Your task to perform on an android device: Go to wifi settings Image 0: 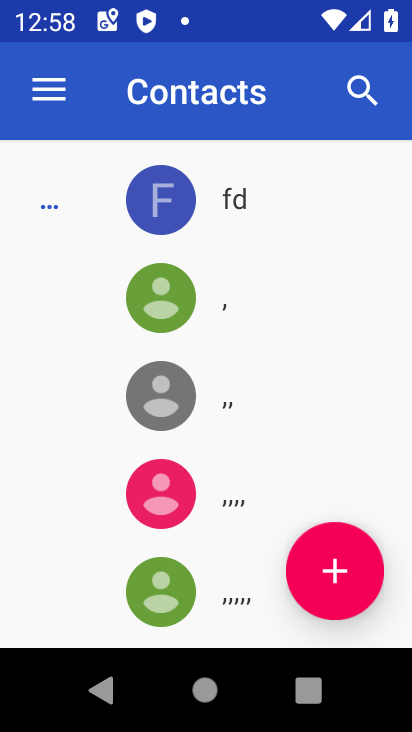
Step 0: press home button
Your task to perform on an android device: Go to wifi settings Image 1: 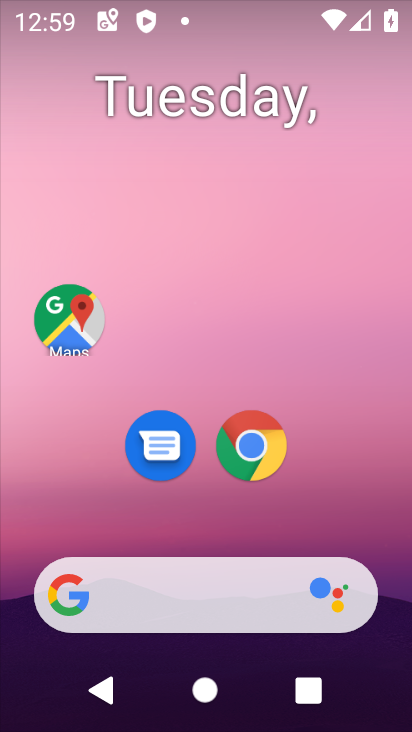
Step 1: drag from (340, 508) to (344, 75)
Your task to perform on an android device: Go to wifi settings Image 2: 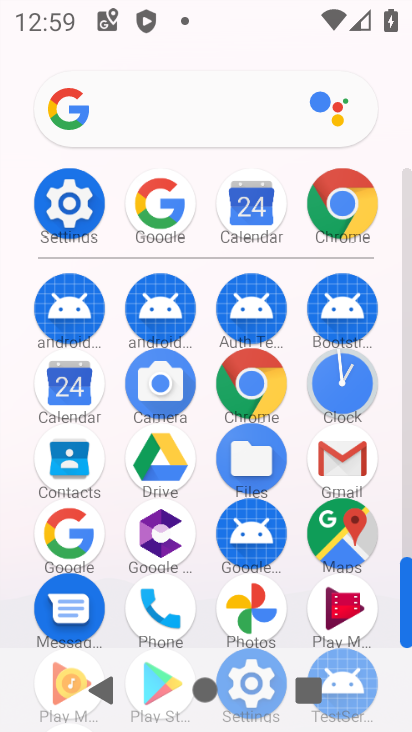
Step 2: click (64, 200)
Your task to perform on an android device: Go to wifi settings Image 3: 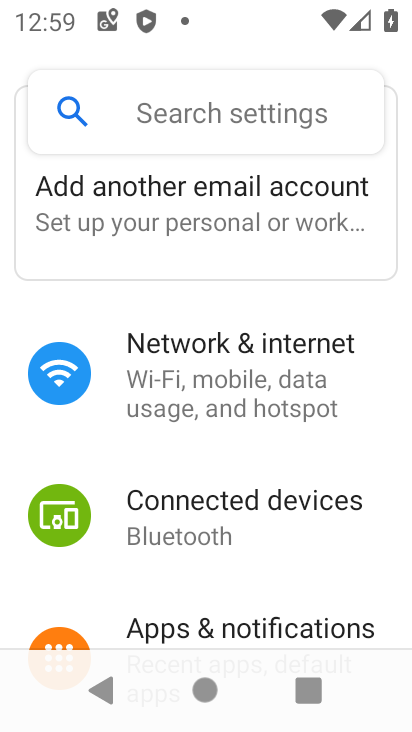
Step 3: click (178, 346)
Your task to perform on an android device: Go to wifi settings Image 4: 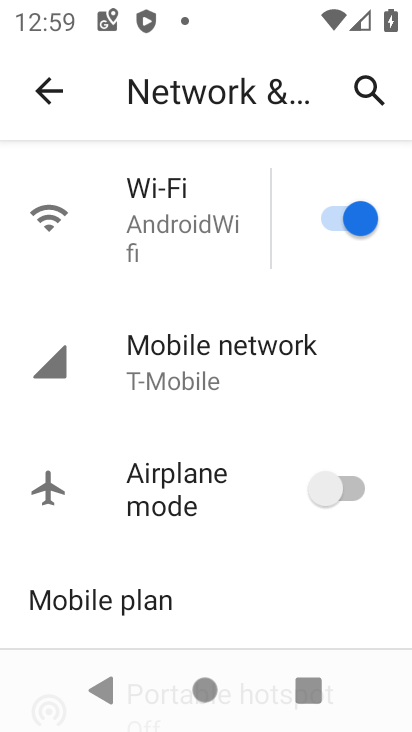
Step 4: click (179, 222)
Your task to perform on an android device: Go to wifi settings Image 5: 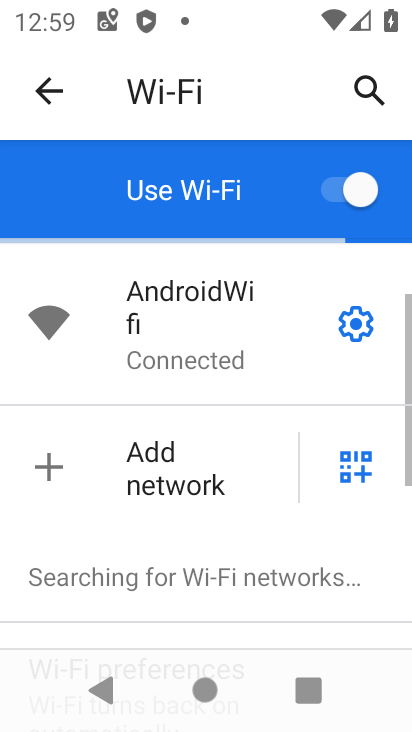
Step 5: task complete